Your task to perform on an android device: clear history in the chrome app Image 0: 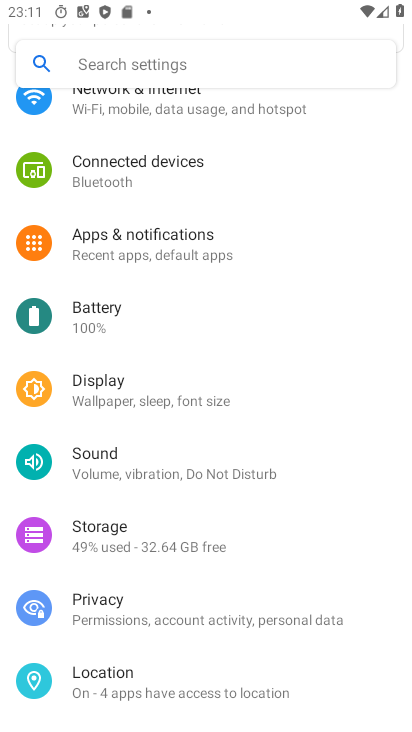
Step 0: press home button
Your task to perform on an android device: clear history in the chrome app Image 1: 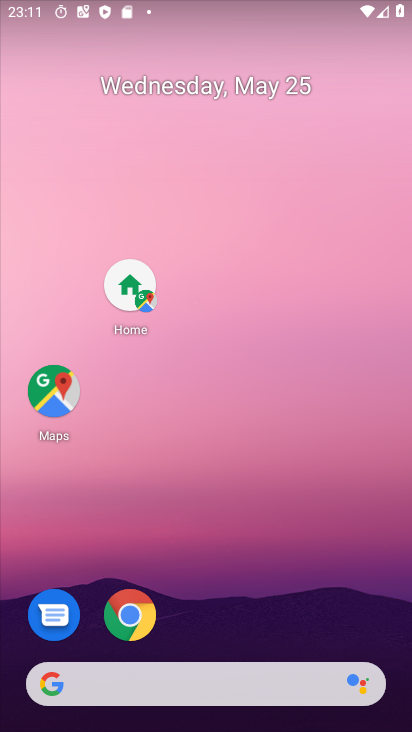
Step 1: click (139, 621)
Your task to perform on an android device: clear history in the chrome app Image 2: 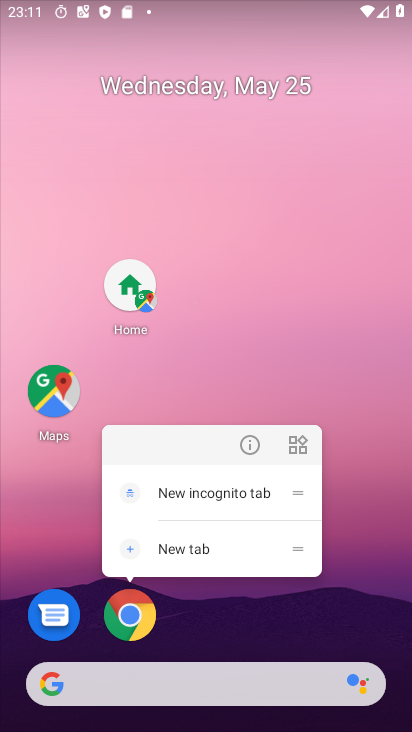
Step 2: click (133, 612)
Your task to perform on an android device: clear history in the chrome app Image 3: 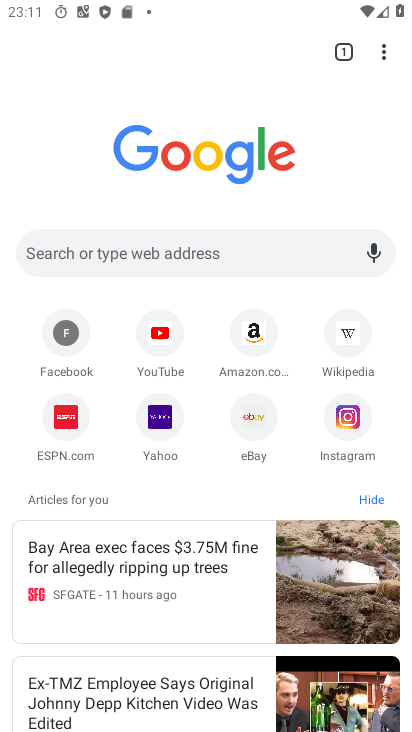
Step 3: click (382, 50)
Your task to perform on an android device: clear history in the chrome app Image 4: 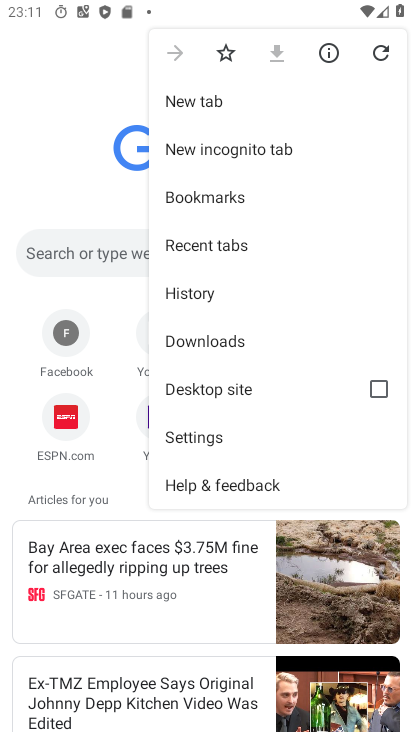
Step 4: click (195, 297)
Your task to perform on an android device: clear history in the chrome app Image 5: 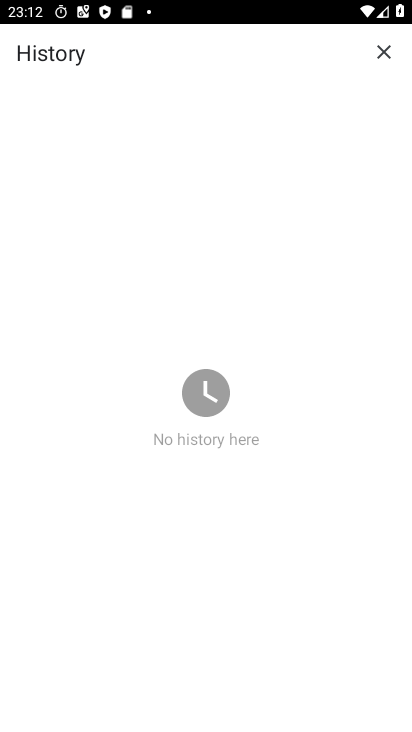
Step 5: task complete